Your task to perform on an android device: turn smart compose on in the gmail app Image 0: 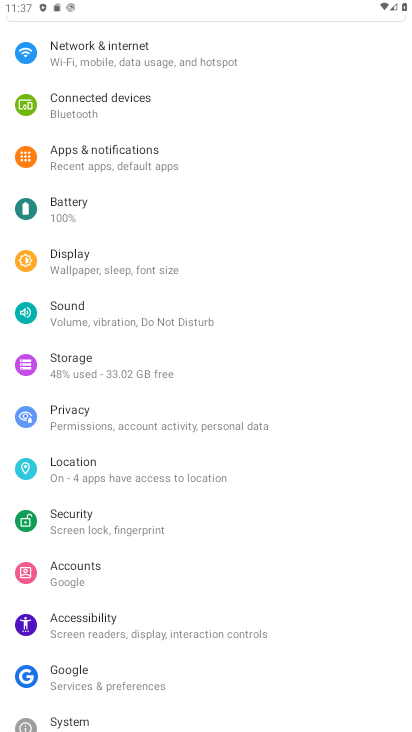
Step 0: press home button
Your task to perform on an android device: turn smart compose on in the gmail app Image 1: 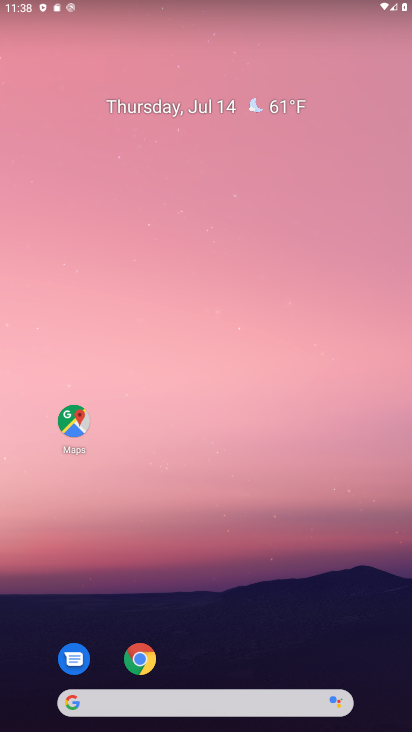
Step 1: drag from (224, 703) to (257, 0)
Your task to perform on an android device: turn smart compose on in the gmail app Image 2: 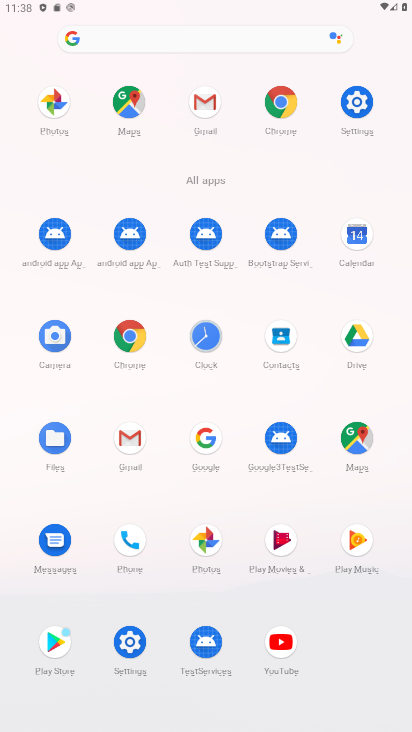
Step 2: click (203, 103)
Your task to perform on an android device: turn smart compose on in the gmail app Image 3: 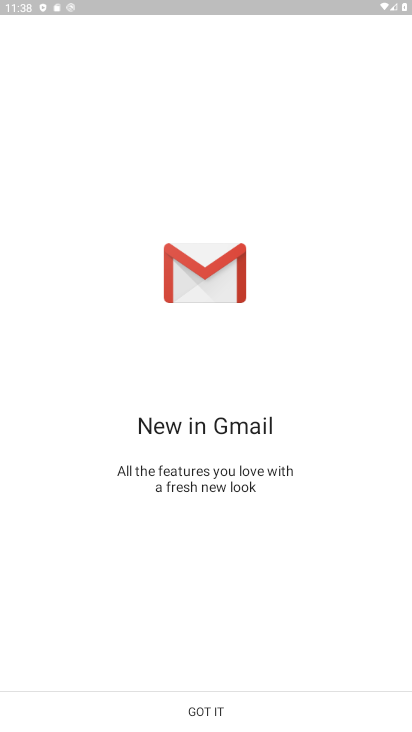
Step 3: click (208, 714)
Your task to perform on an android device: turn smart compose on in the gmail app Image 4: 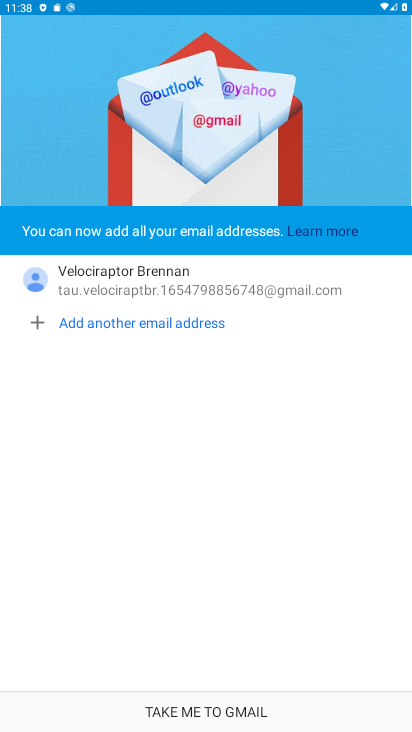
Step 4: click (208, 714)
Your task to perform on an android device: turn smart compose on in the gmail app Image 5: 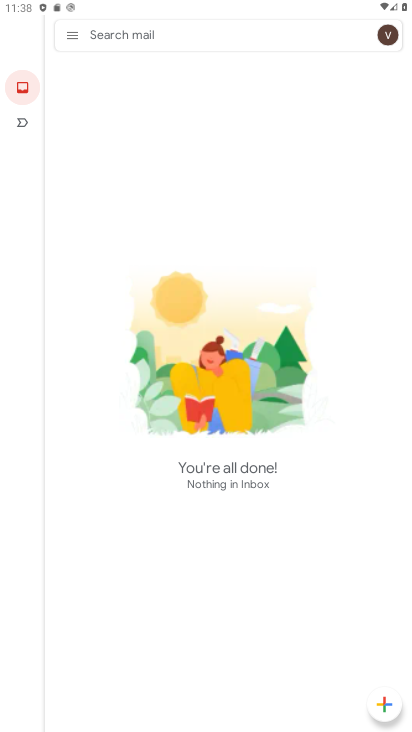
Step 5: click (72, 33)
Your task to perform on an android device: turn smart compose on in the gmail app Image 6: 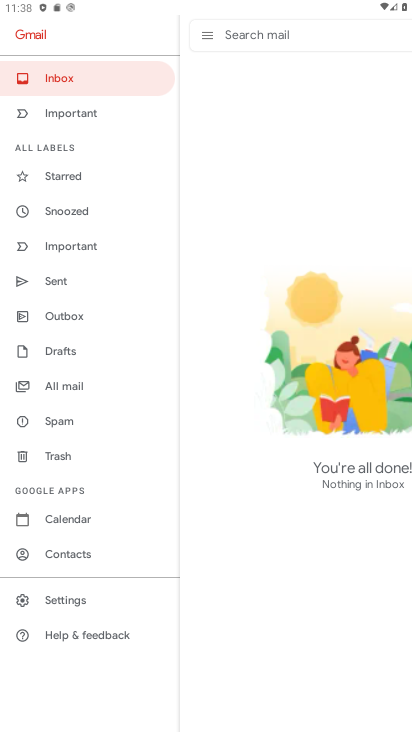
Step 6: click (67, 603)
Your task to perform on an android device: turn smart compose on in the gmail app Image 7: 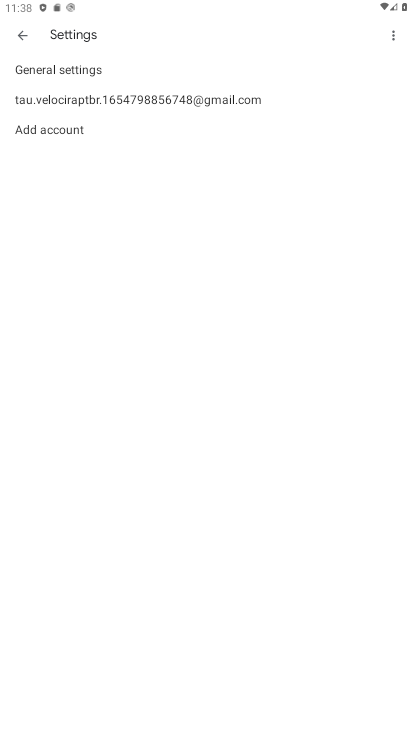
Step 7: click (187, 99)
Your task to perform on an android device: turn smart compose on in the gmail app Image 8: 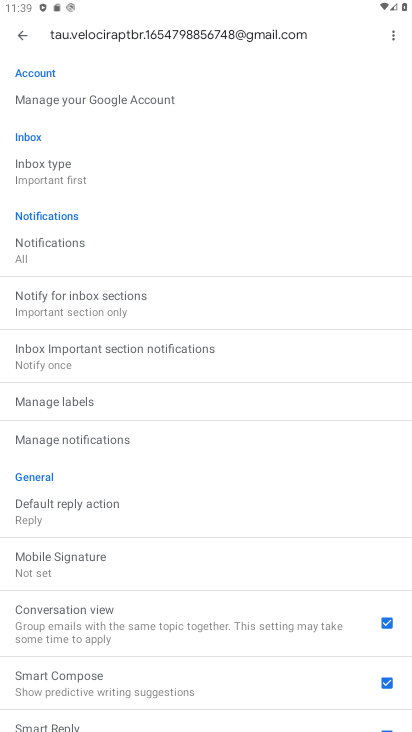
Step 8: task complete